Your task to perform on an android device: remove spam from my inbox in the gmail app Image 0: 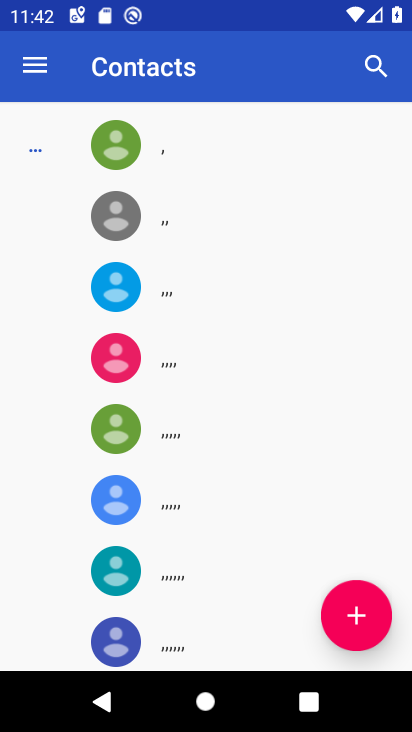
Step 0: press home button
Your task to perform on an android device: remove spam from my inbox in the gmail app Image 1: 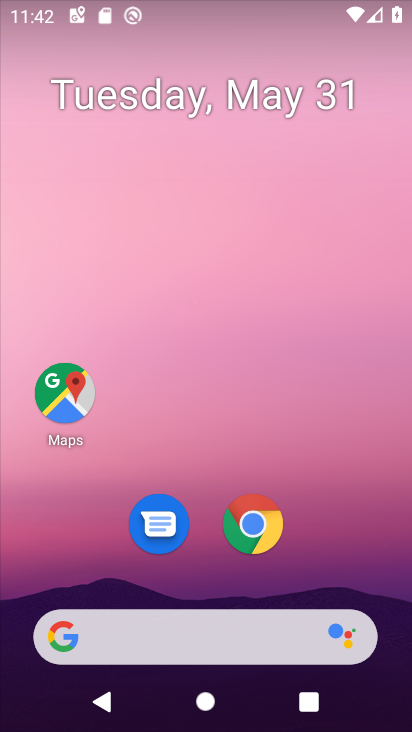
Step 1: drag from (331, 545) to (304, 36)
Your task to perform on an android device: remove spam from my inbox in the gmail app Image 2: 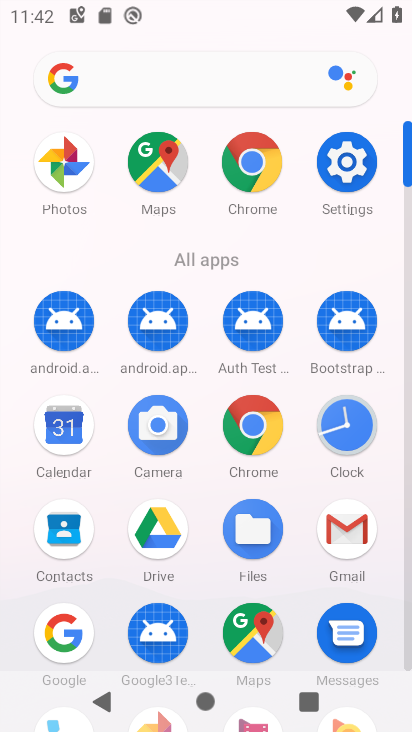
Step 2: click (343, 518)
Your task to perform on an android device: remove spam from my inbox in the gmail app Image 3: 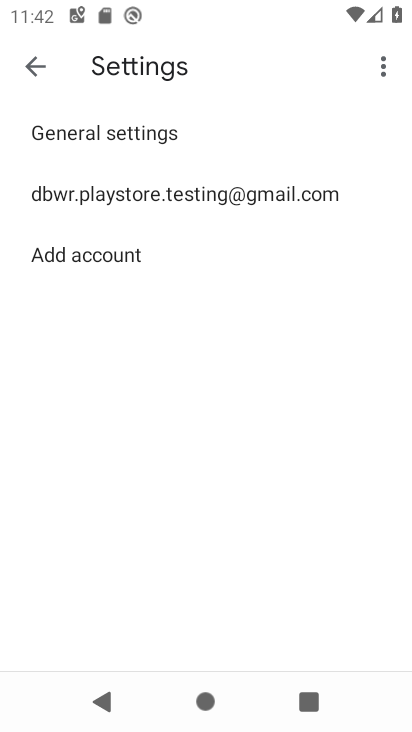
Step 3: click (40, 58)
Your task to perform on an android device: remove spam from my inbox in the gmail app Image 4: 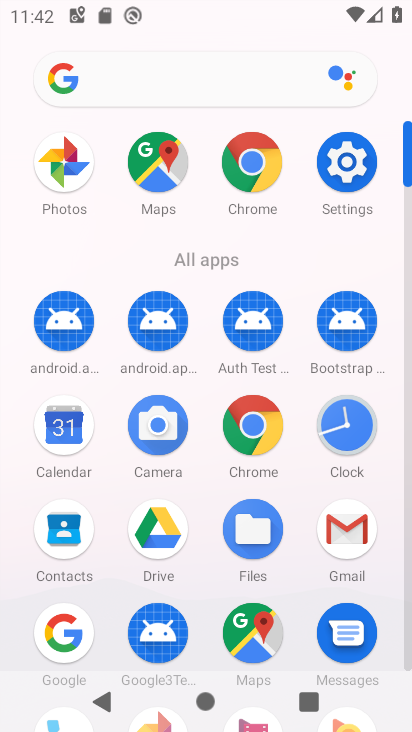
Step 4: click (348, 540)
Your task to perform on an android device: remove spam from my inbox in the gmail app Image 5: 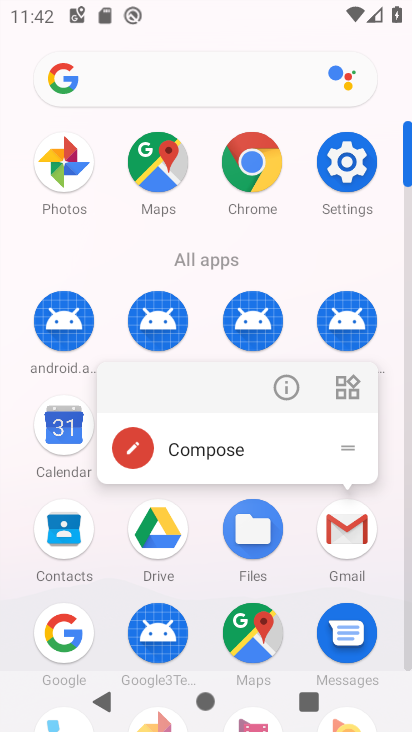
Step 5: click (349, 534)
Your task to perform on an android device: remove spam from my inbox in the gmail app Image 6: 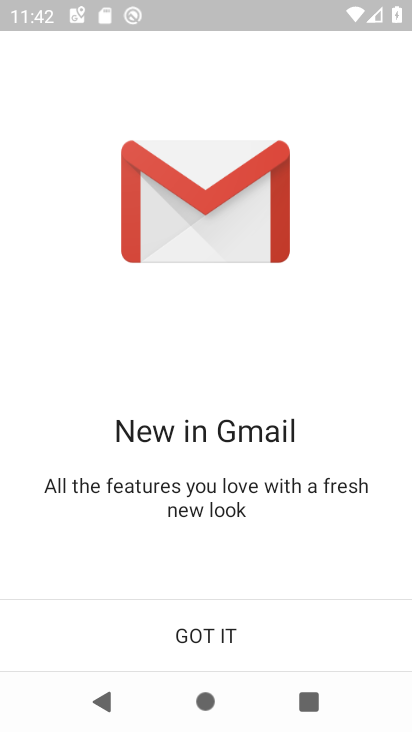
Step 6: click (283, 628)
Your task to perform on an android device: remove spam from my inbox in the gmail app Image 7: 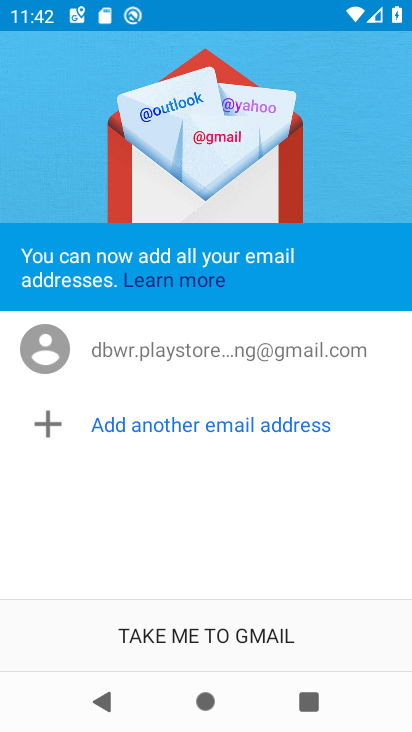
Step 7: click (283, 626)
Your task to perform on an android device: remove spam from my inbox in the gmail app Image 8: 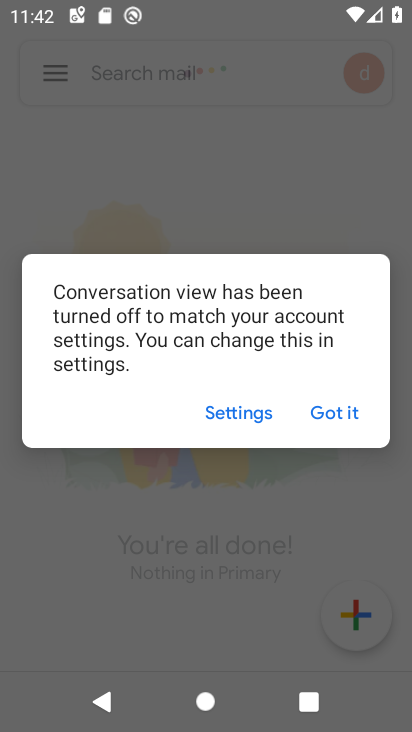
Step 8: click (350, 412)
Your task to perform on an android device: remove spam from my inbox in the gmail app Image 9: 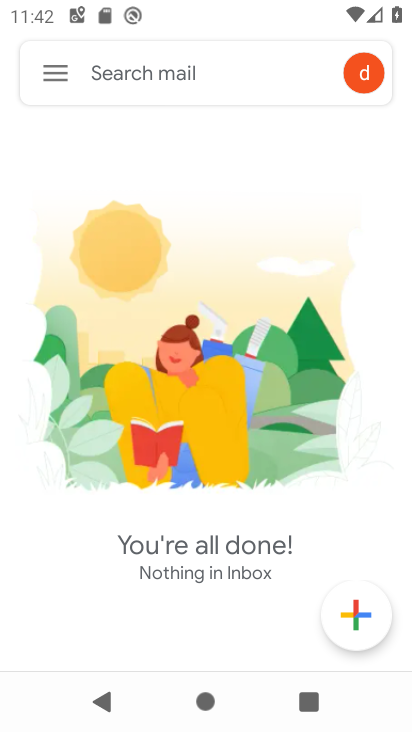
Step 9: click (61, 68)
Your task to perform on an android device: remove spam from my inbox in the gmail app Image 10: 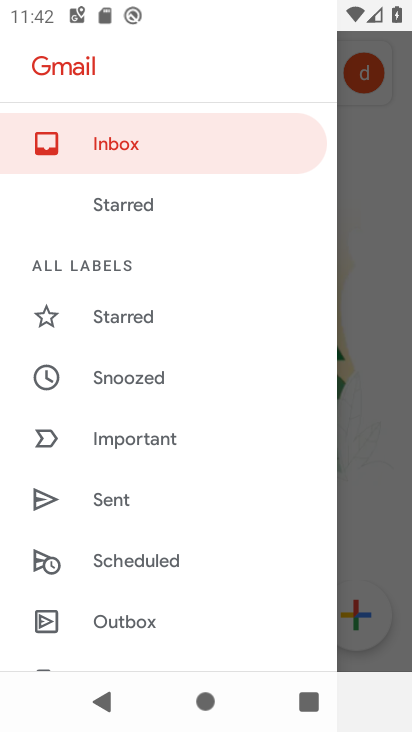
Step 10: drag from (185, 556) to (188, 213)
Your task to perform on an android device: remove spam from my inbox in the gmail app Image 11: 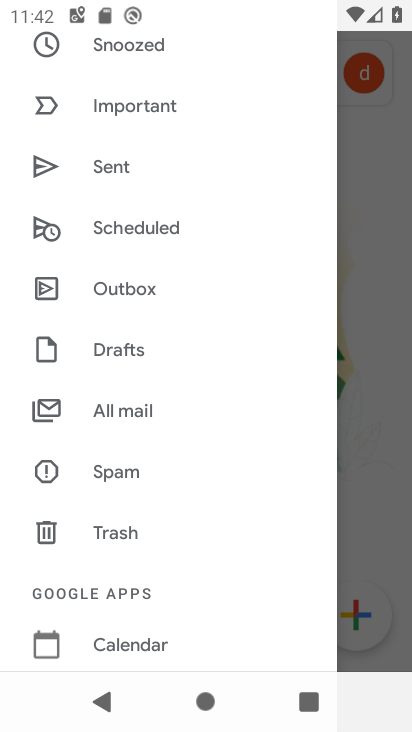
Step 11: click (155, 466)
Your task to perform on an android device: remove spam from my inbox in the gmail app Image 12: 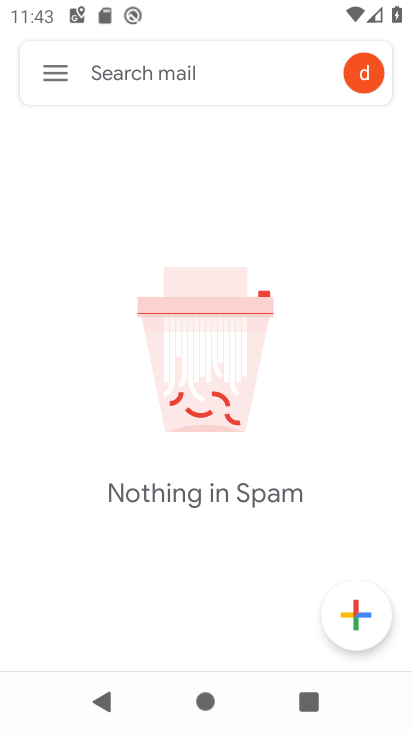
Step 12: task complete